Your task to perform on an android device: turn smart compose on in the gmail app Image 0: 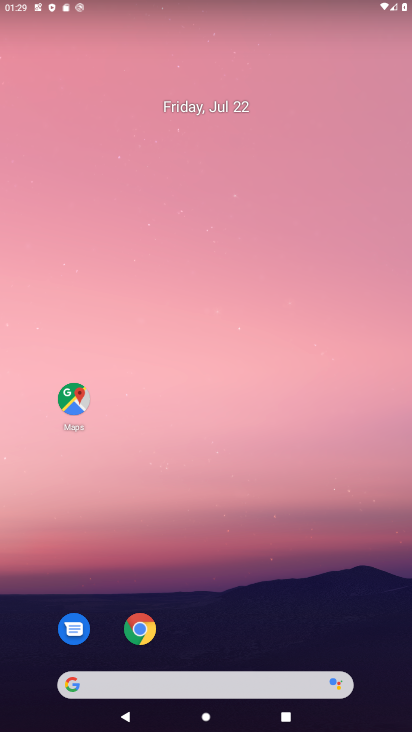
Step 0: drag from (37, 581) to (396, 266)
Your task to perform on an android device: turn smart compose on in the gmail app Image 1: 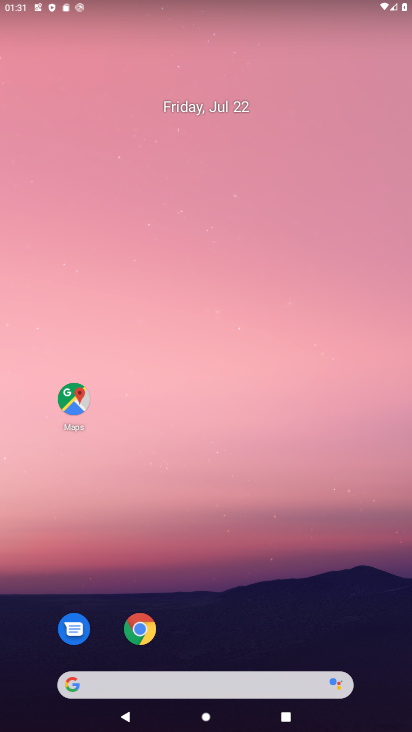
Step 1: drag from (86, 475) to (264, 74)
Your task to perform on an android device: turn smart compose on in the gmail app Image 2: 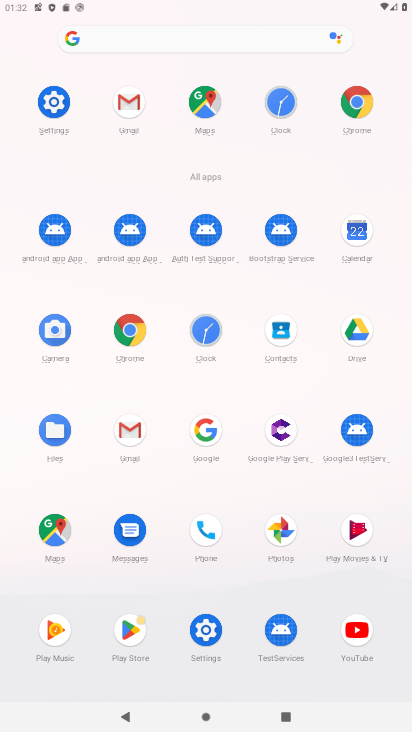
Step 2: click (114, 107)
Your task to perform on an android device: turn smart compose on in the gmail app Image 3: 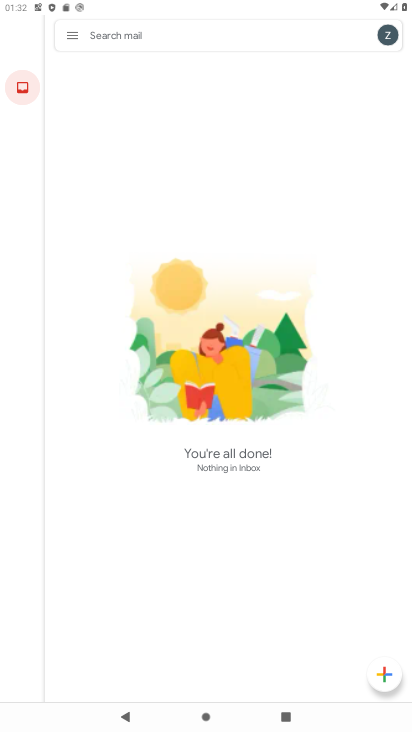
Step 3: click (75, 32)
Your task to perform on an android device: turn smart compose on in the gmail app Image 4: 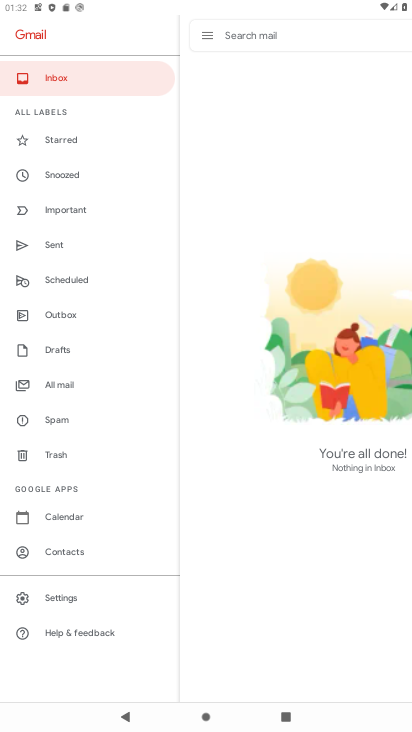
Step 4: click (53, 598)
Your task to perform on an android device: turn smart compose on in the gmail app Image 5: 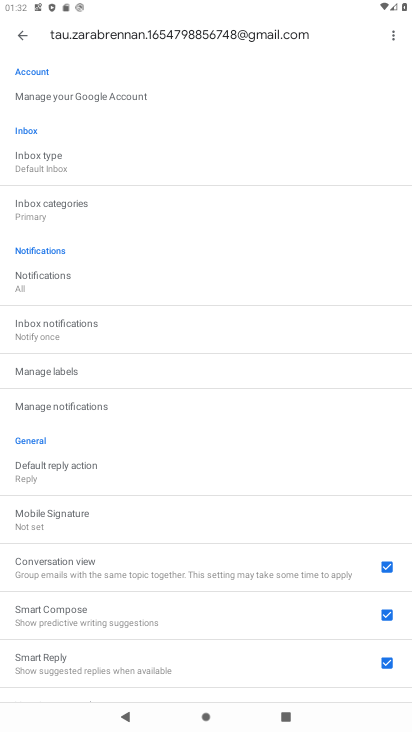
Step 5: task complete